Your task to perform on an android device: Go to accessibility settings Image 0: 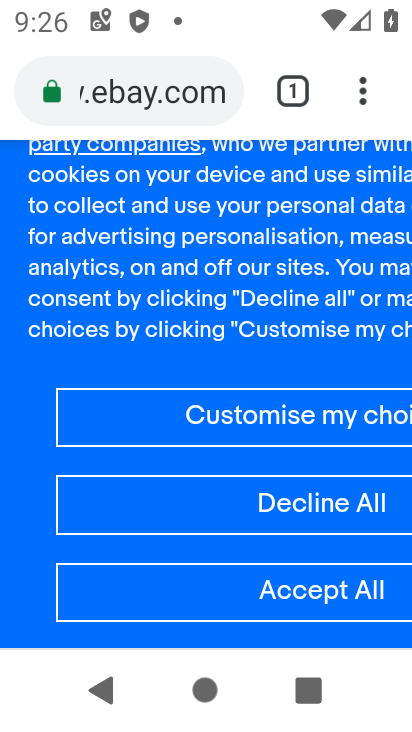
Step 0: press home button
Your task to perform on an android device: Go to accessibility settings Image 1: 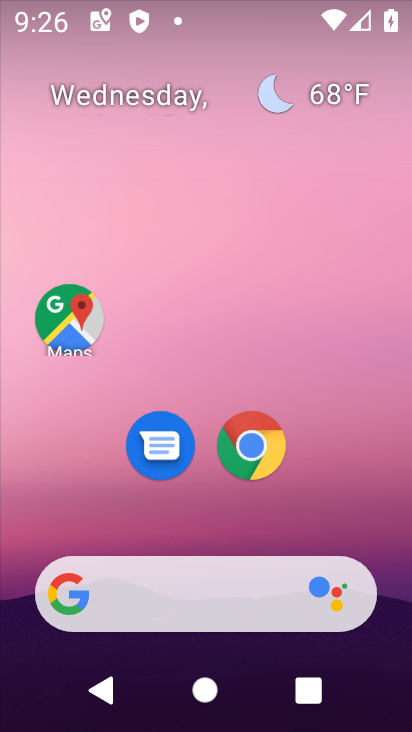
Step 1: drag from (372, 513) to (393, 13)
Your task to perform on an android device: Go to accessibility settings Image 2: 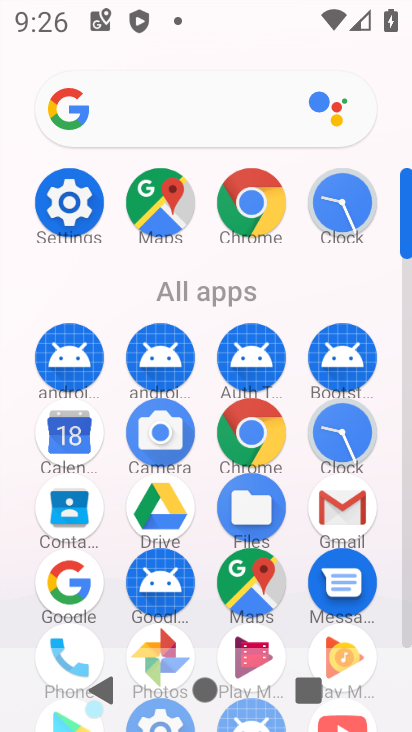
Step 2: click (66, 206)
Your task to perform on an android device: Go to accessibility settings Image 3: 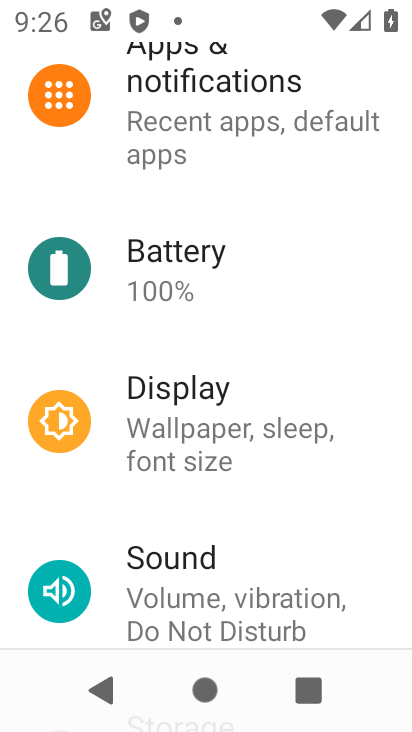
Step 3: drag from (226, 299) to (212, 597)
Your task to perform on an android device: Go to accessibility settings Image 4: 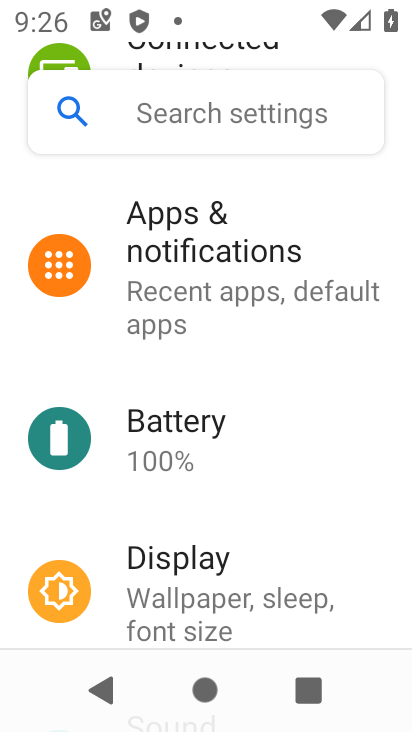
Step 4: drag from (267, 259) to (223, 611)
Your task to perform on an android device: Go to accessibility settings Image 5: 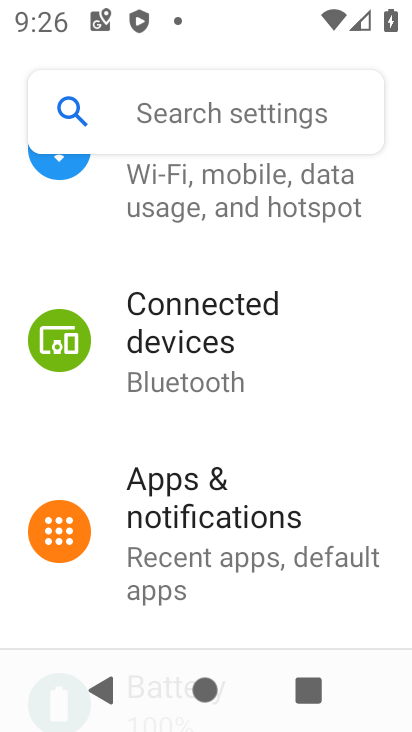
Step 5: drag from (252, 300) to (264, 596)
Your task to perform on an android device: Go to accessibility settings Image 6: 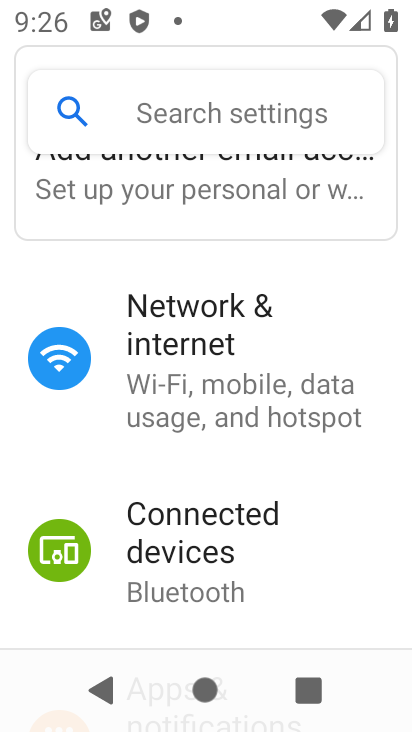
Step 6: drag from (251, 544) to (301, 186)
Your task to perform on an android device: Go to accessibility settings Image 7: 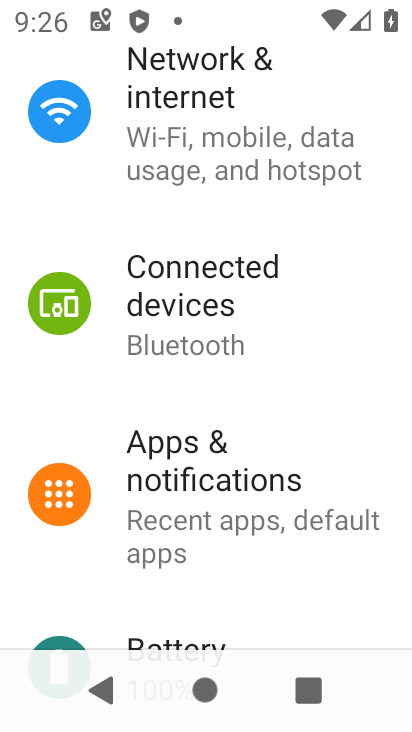
Step 7: drag from (286, 508) to (306, 145)
Your task to perform on an android device: Go to accessibility settings Image 8: 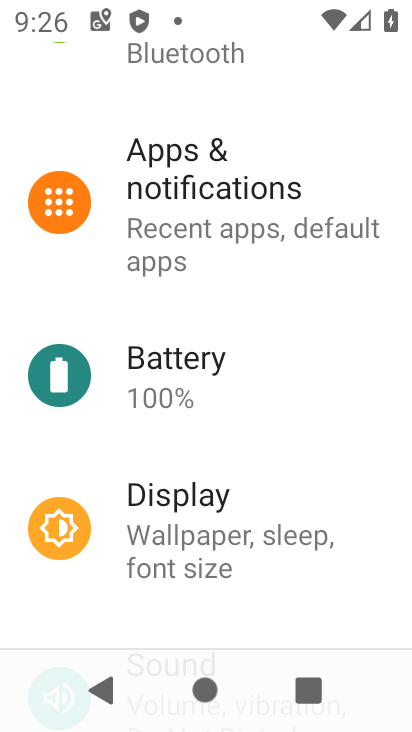
Step 8: drag from (261, 547) to (318, 161)
Your task to perform on an android device: Go to accessibility settings Image 9: 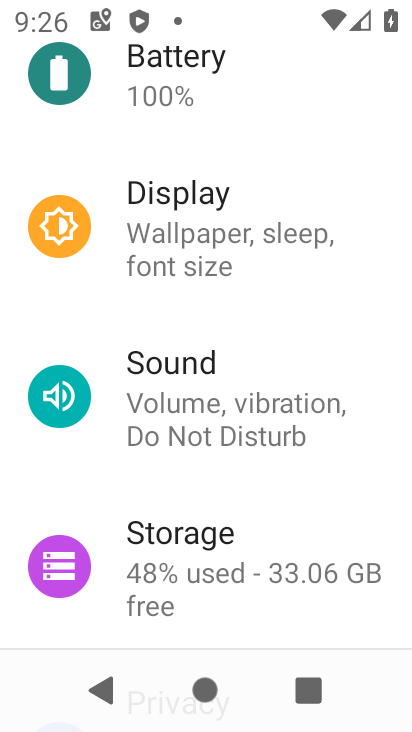
Step 9: drag from (263, 506) to (303, 113)
Your task to perform on an android device: Go to accessibility settings Image 10: 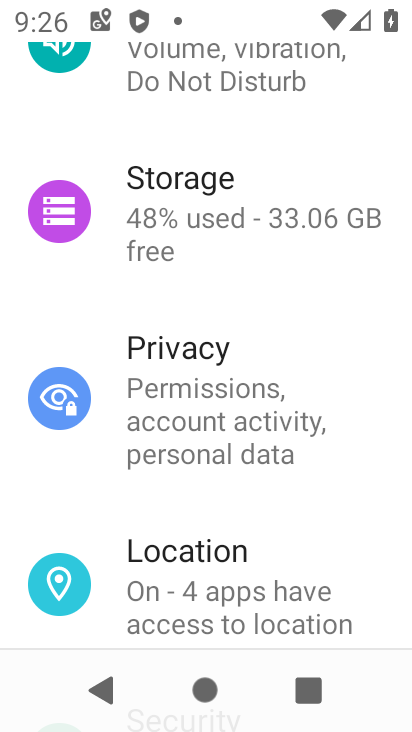
Step 10: drag from (267, 568) to (324, 129)
Your task to perform on an android device: Go to accessibility settings Image 11: 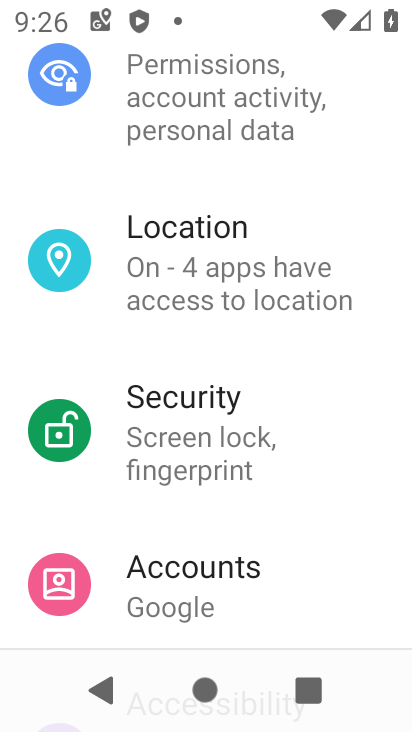
Step 11: drag from (243, 499) to (276, 139)
Your task to perform on an android device: Go to accessibility settings Image 12: 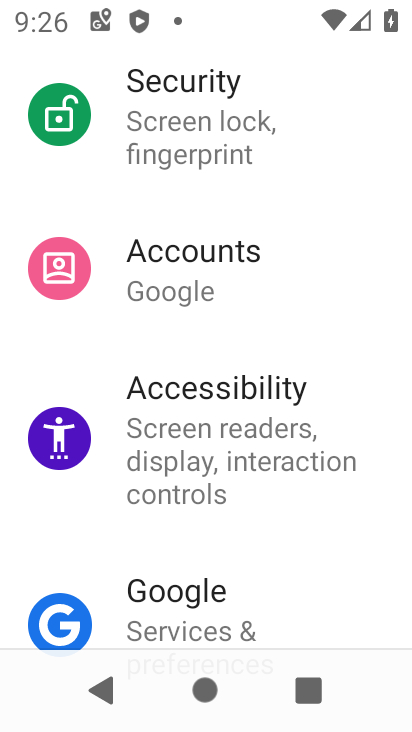
Step 12: click (243, 421)
Your task to perform on an android device: Go to accessibility settings Image 13: 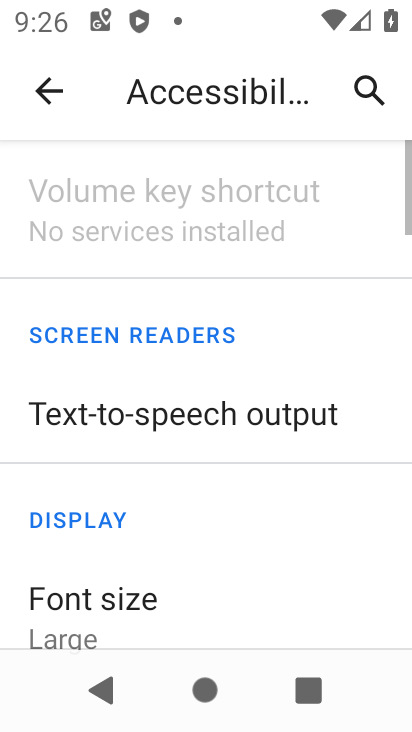
Step 13: task complete